Your task to perform on an android device: Find coffee shops on Maps Image 0: 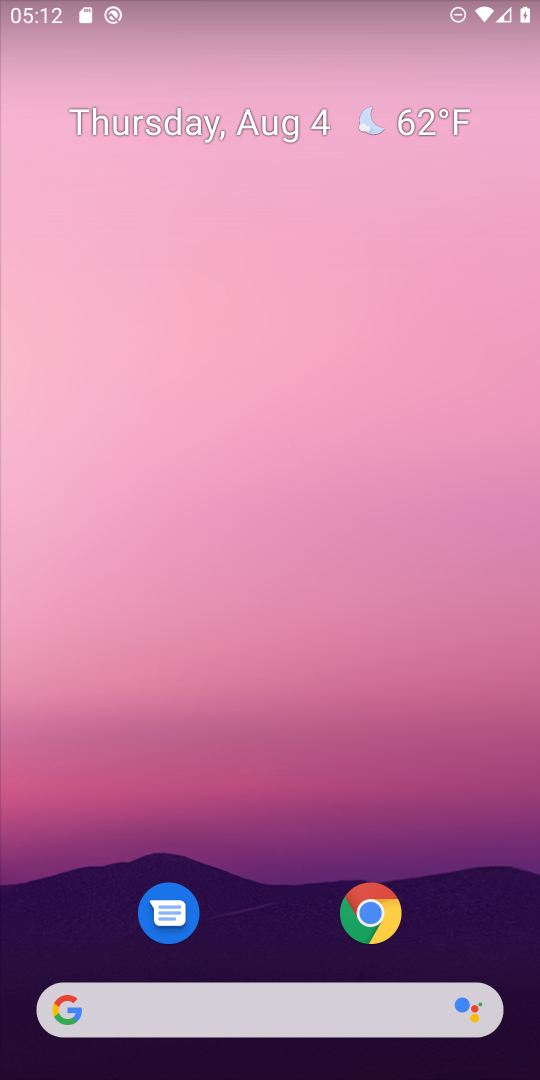
Step 0: drag from (313, 918) to (258, 11)
Your task to perform on an android device: Find coffee shops on Maps Image 1: 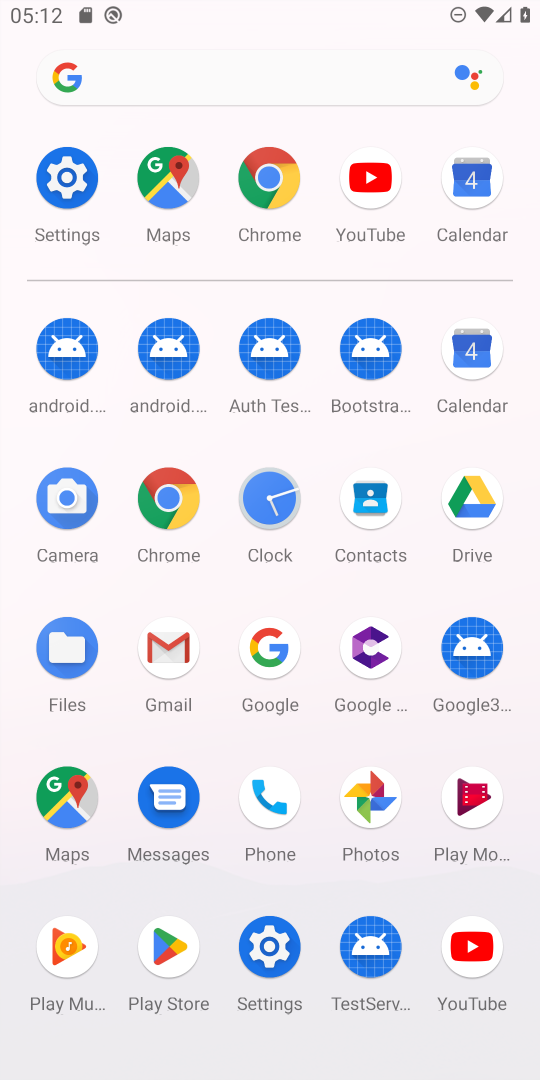
Step 1: click (53, 800)
Your task to perform on an android device: Find coffee shops on Maps Image 2: 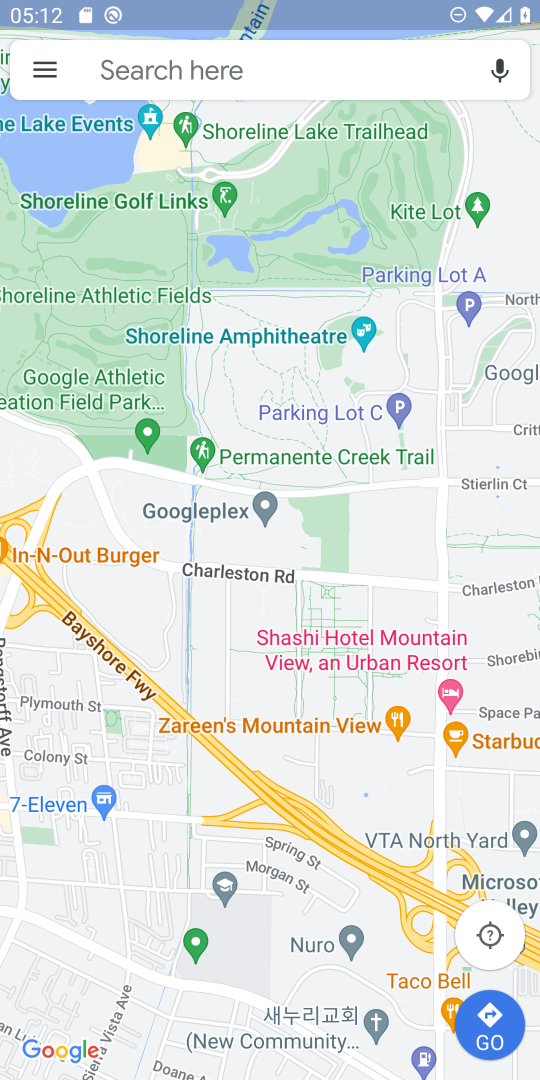
Step 2: task complete